Your task to perform on an android device: Open calendar and show me the fourth week of next month Image 0: 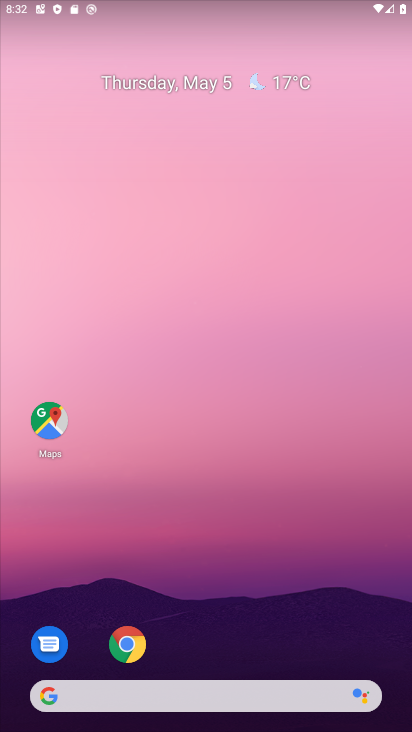
Step 0: drag from (234, 517) to (293, 242)
Your task to perform on an android device: Open calendar and show me the fourth week of next month Image 1: 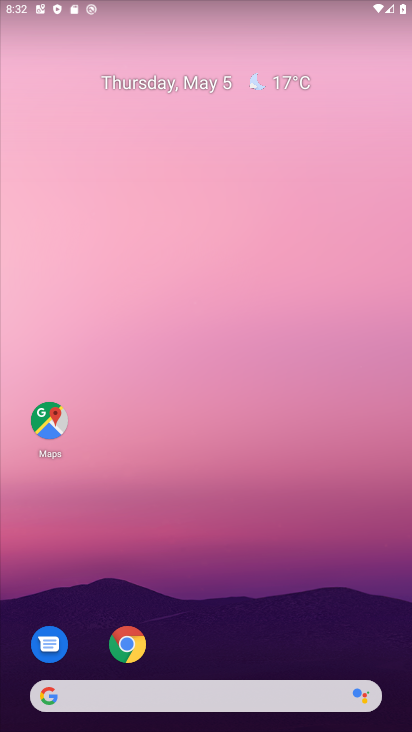
Step 1: drag from (197, 629) to (205, 195)
Your task to perform on an android device: Open calendar and show me the fourth week of next month Image 2: 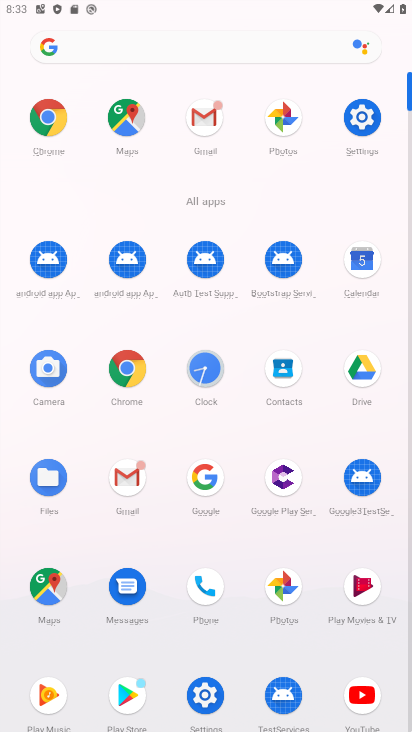
Step 2: click (372, 267)
Your task to perform on an android device: Open calendar and show me the fourth week of next month Image 3: 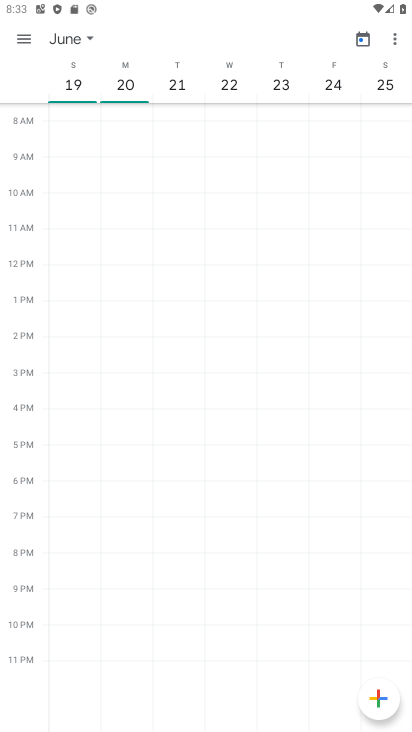
Step 3: click (18, 45)
Your task to perform on an android device: Open calendar and show me the fourth week of next month Image 4: 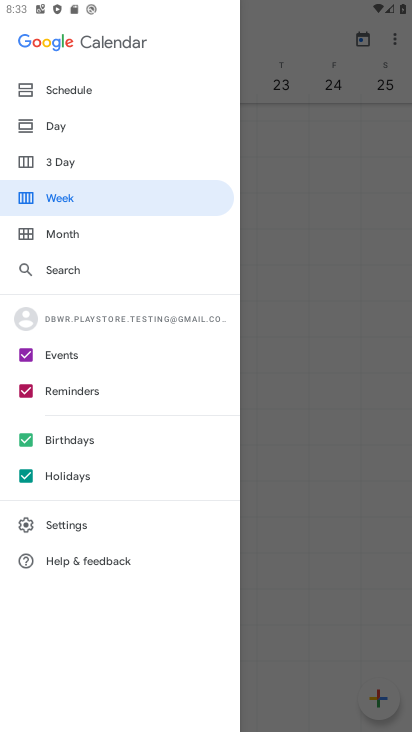
Step 4: click (70, 200)
Your task to perform on an android device: Open calendar and show me the fourth week of next month Image 5: 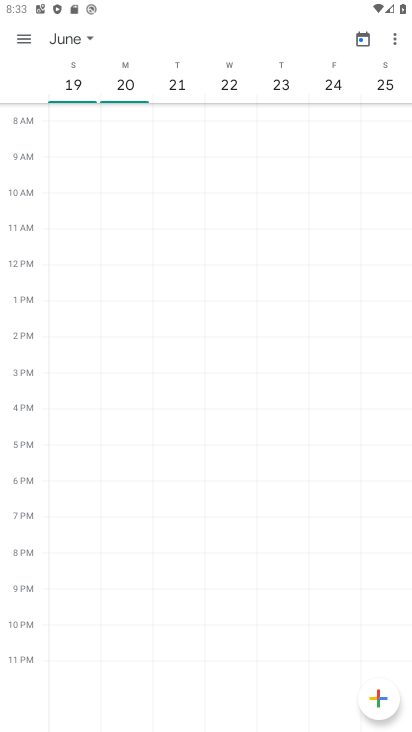
Step 5: click (94, 44)
Your task to perform on an android device: Open calendar and show me the fourth week of next month Image 6: 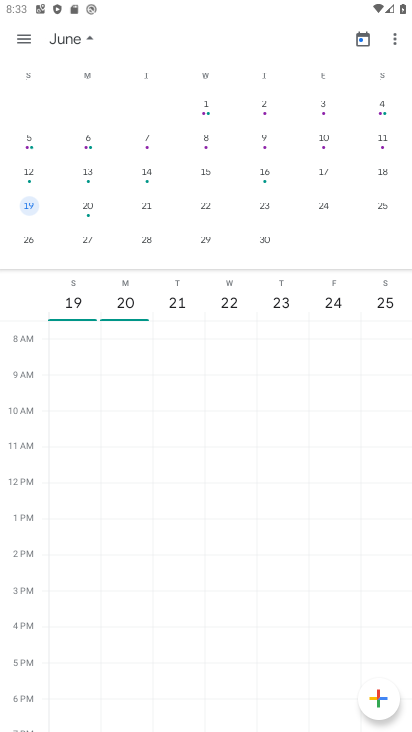
Step 6: click (205, 240)
Your task to perform on an android device: Open calendar and show me the fourth week of next month Image 7: 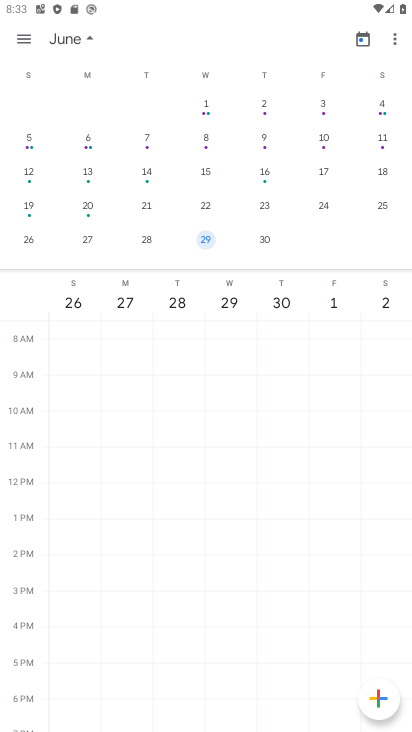
Step 7: task complete